Your task to perform on an android device: Open the Play Movies app and select the watchlist tab. Image 0: 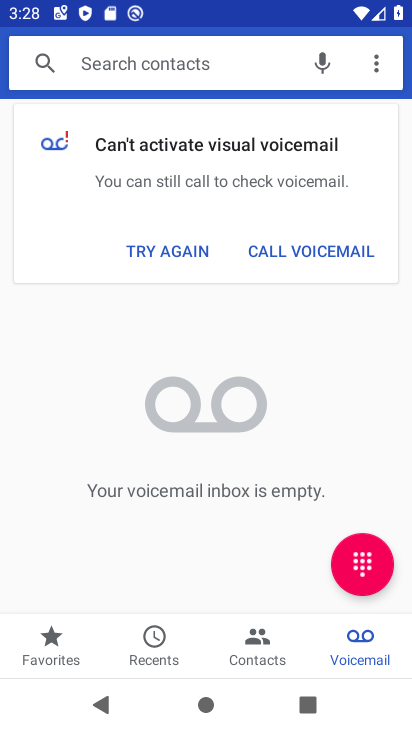
Step 0: press home button
Your task to perform on an android device: Open the Play Movies app and select the watchlist tab. Image 1: 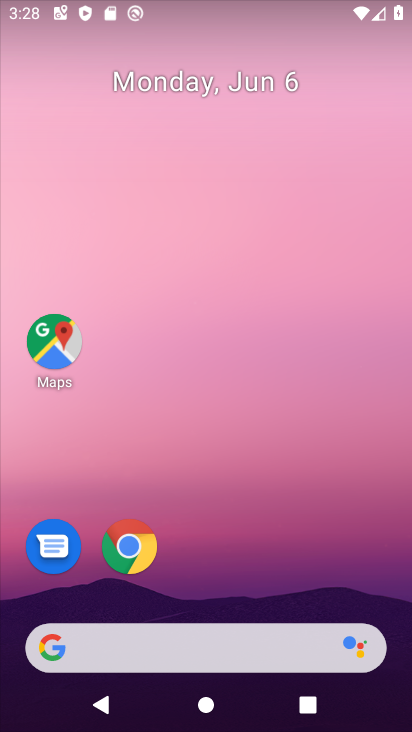
Step 1: drag from (313, 585) to (245, 200)
Your task to perform on an android device: Open the Play Movies app and select the watchlist tab. Image 2: 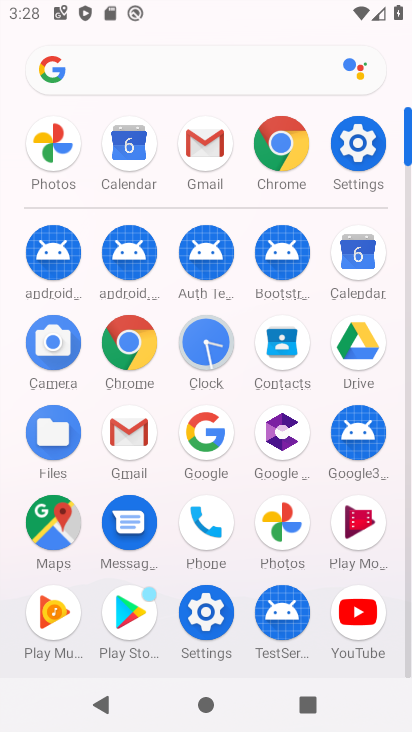
Step 2: click (358, 546)
Your task to perform on an android device: Open the Play Movies app and select the watchlist tab. Image 3: 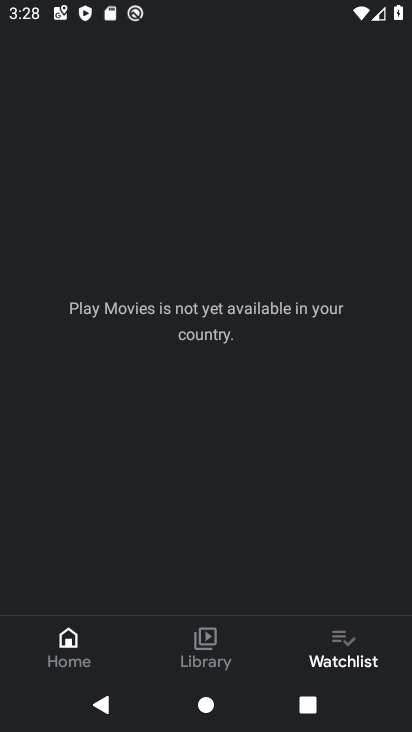
Step 3: click (381, 655)
Your task to perform on an android device: Open the Play Movies app and select the watchlist tab. Image 4: 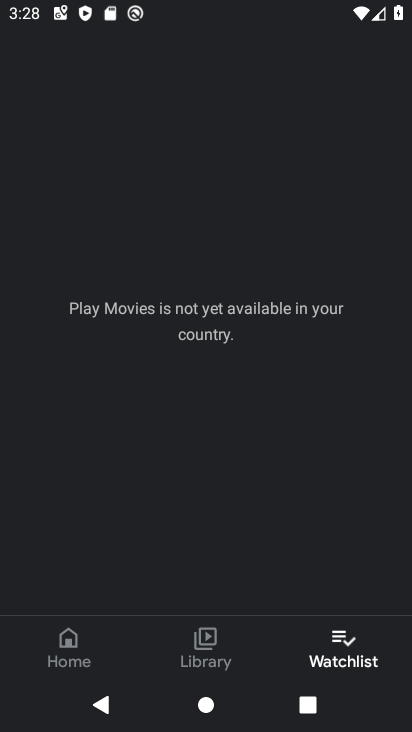
Step 4: task complete